Your task to perform on an android device: Open the phone app and click the voicemail tab. Image 0: 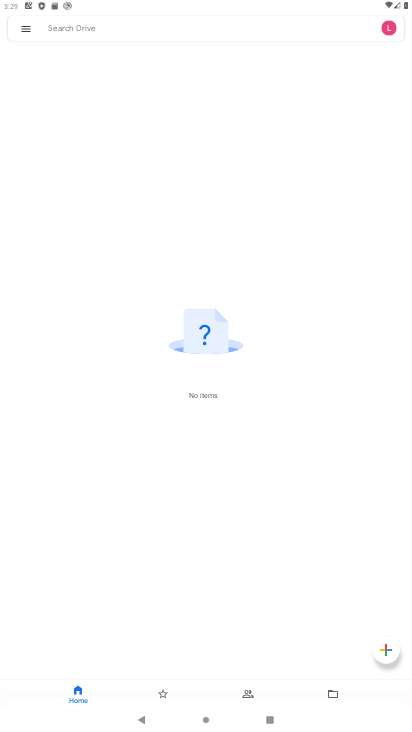
Step 0: press home button
Your task to perform on an android device: Open the phone app and click the voicemail tab. Image 1: 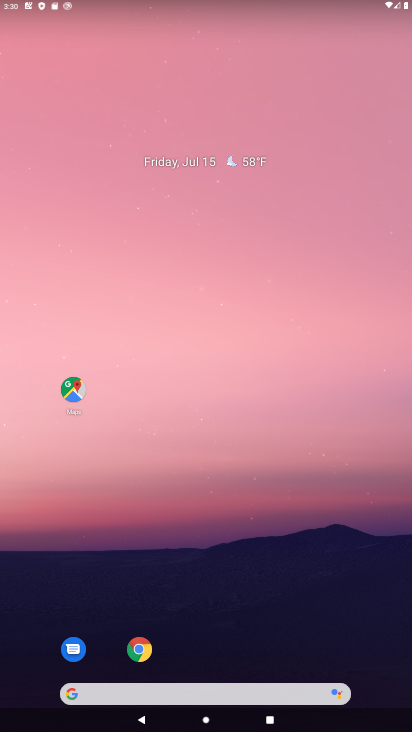
Step 1: drag from (228, 708) to (223, 173)
Your task to perform on an android device: Open the phone app and click the voicemail tab. Image 2: 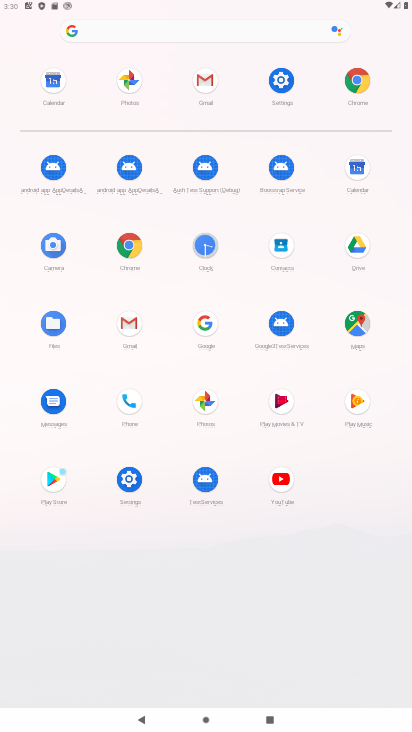
Step 2: click (126, 404)
Your task to perform on an android device: Open the phone app and click the voicemail tab. Image 3: 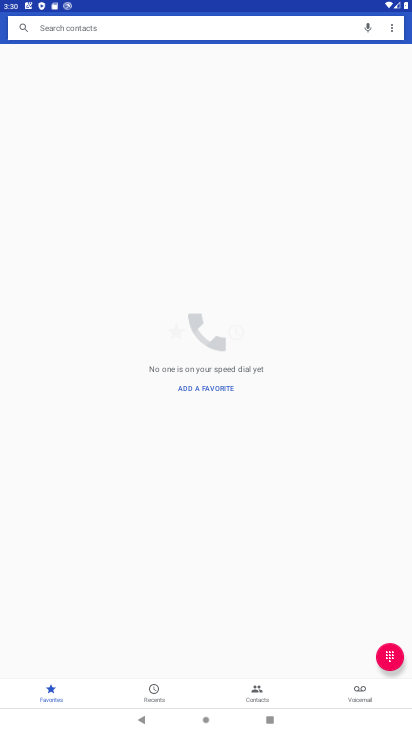
Step 3: click (364, 692)
Your task to perform on an android device: Open the phone app and click the voicemail tab. Image 4: 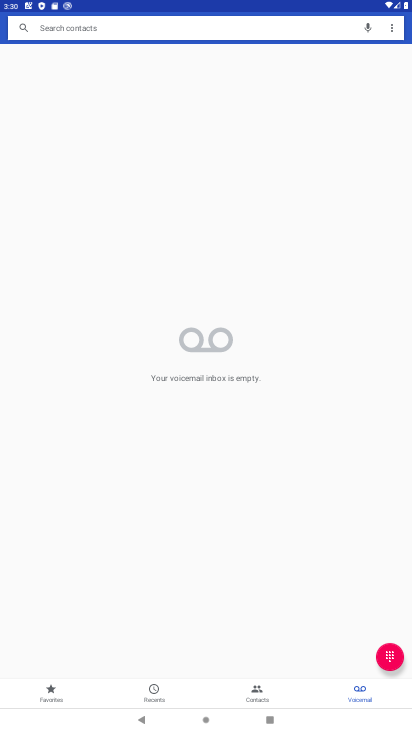
Step 4: task complete